Your task to perform on an android device: manage bookmarks in the chrome app Image 0: 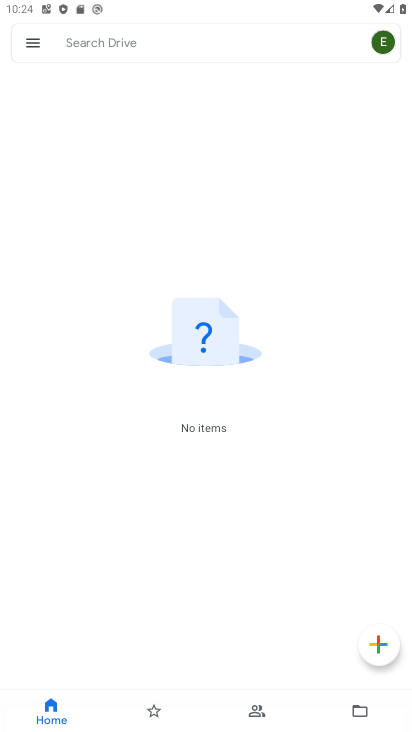
Step 0: press home button
Your task to perform on an android device: manage bookmarks in the chrome app Image 1: 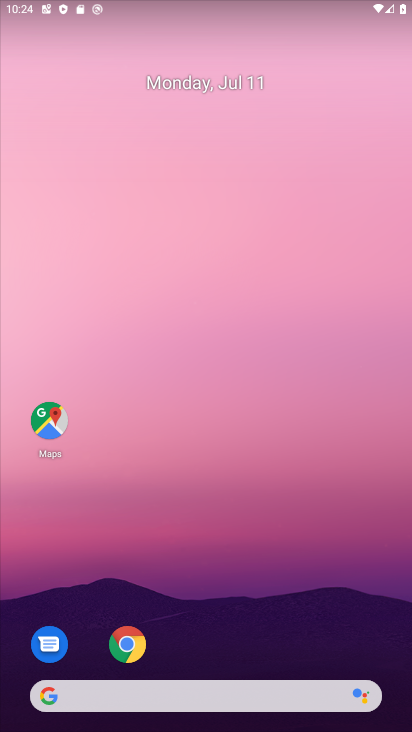
Step 1: click (124, 639)
Your task to perform on an android device: manage bookmarks in the chrome app Image 2: 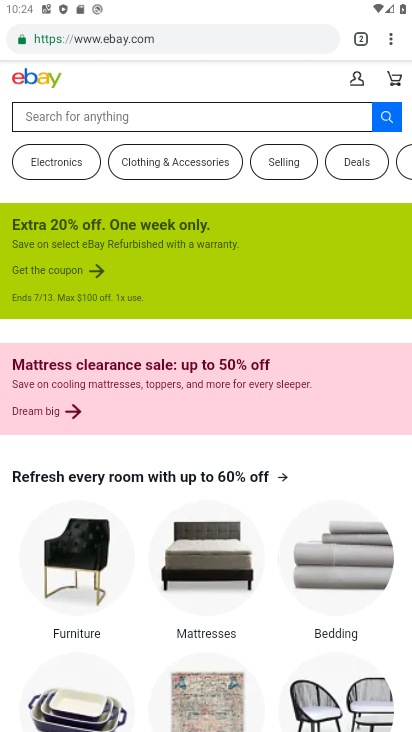
Step 2: click (389, 39)
Your task to perform on an android device: manage bookmarks in the chrome app Image 3: 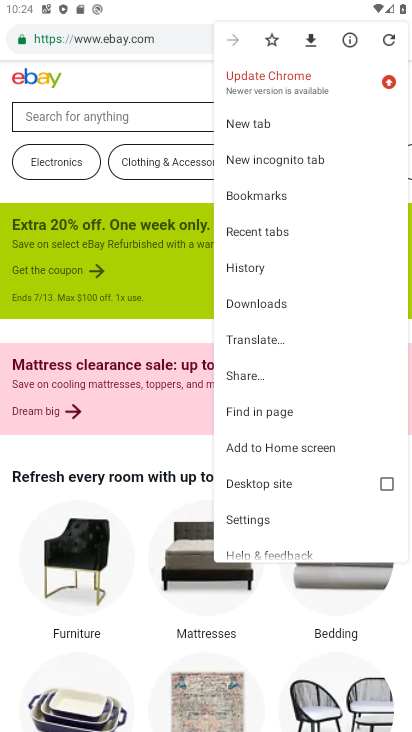
Step 3: click (287, 196)
Your task to perform on an android device: manage bookmarks in the chrome app Image 4: 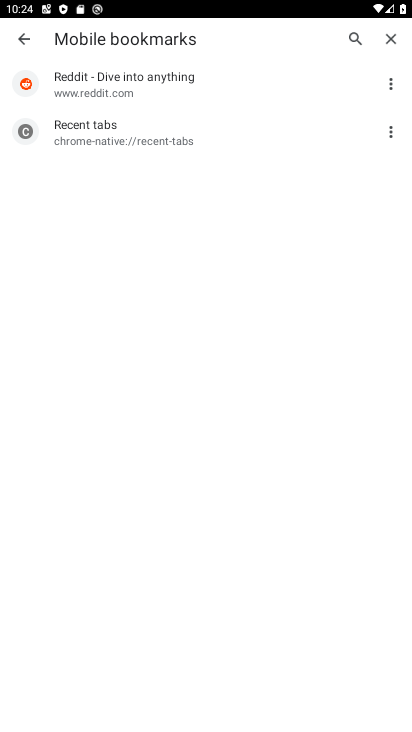
Step 4: task complete